Your task to perform on an android device: Open network settings Image 0: 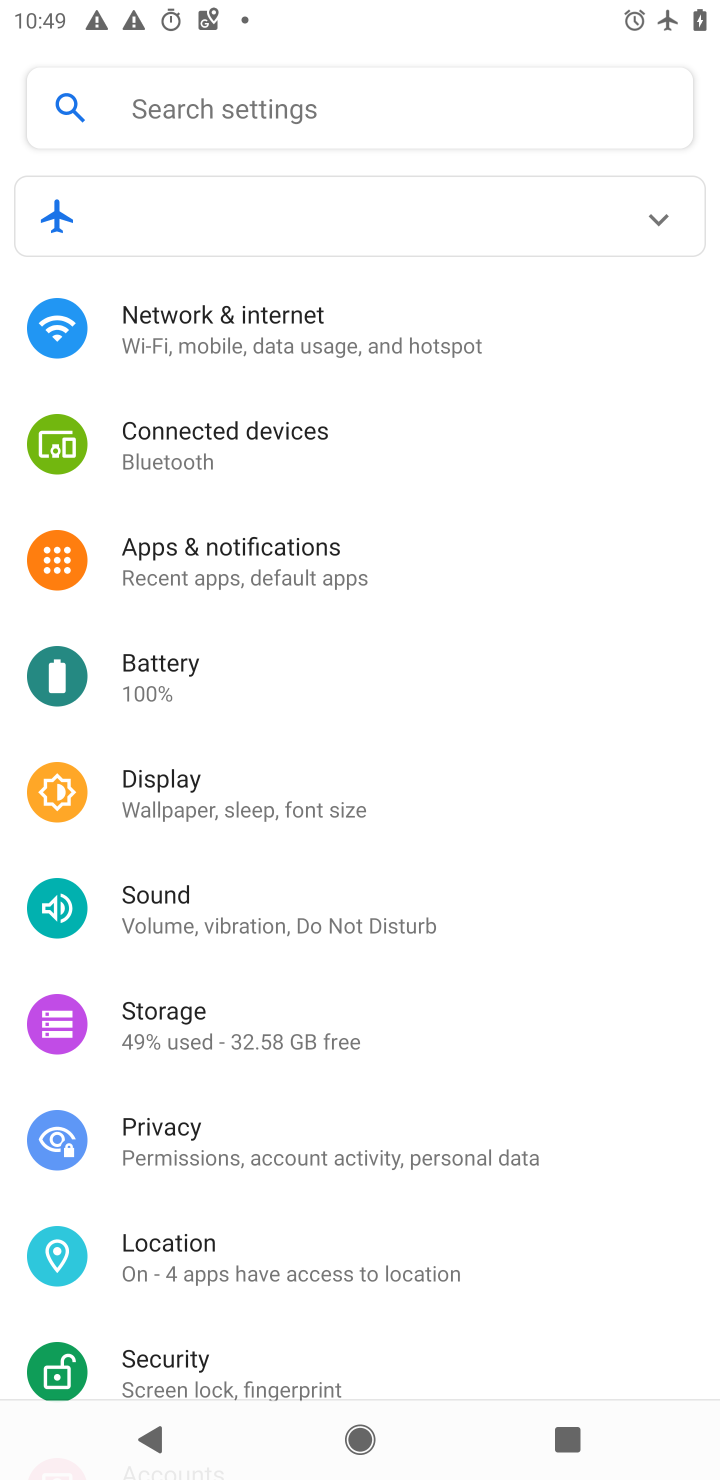
Step 0: click (282, 350)
Your task to perform on an android device: Open network settings Image 1: 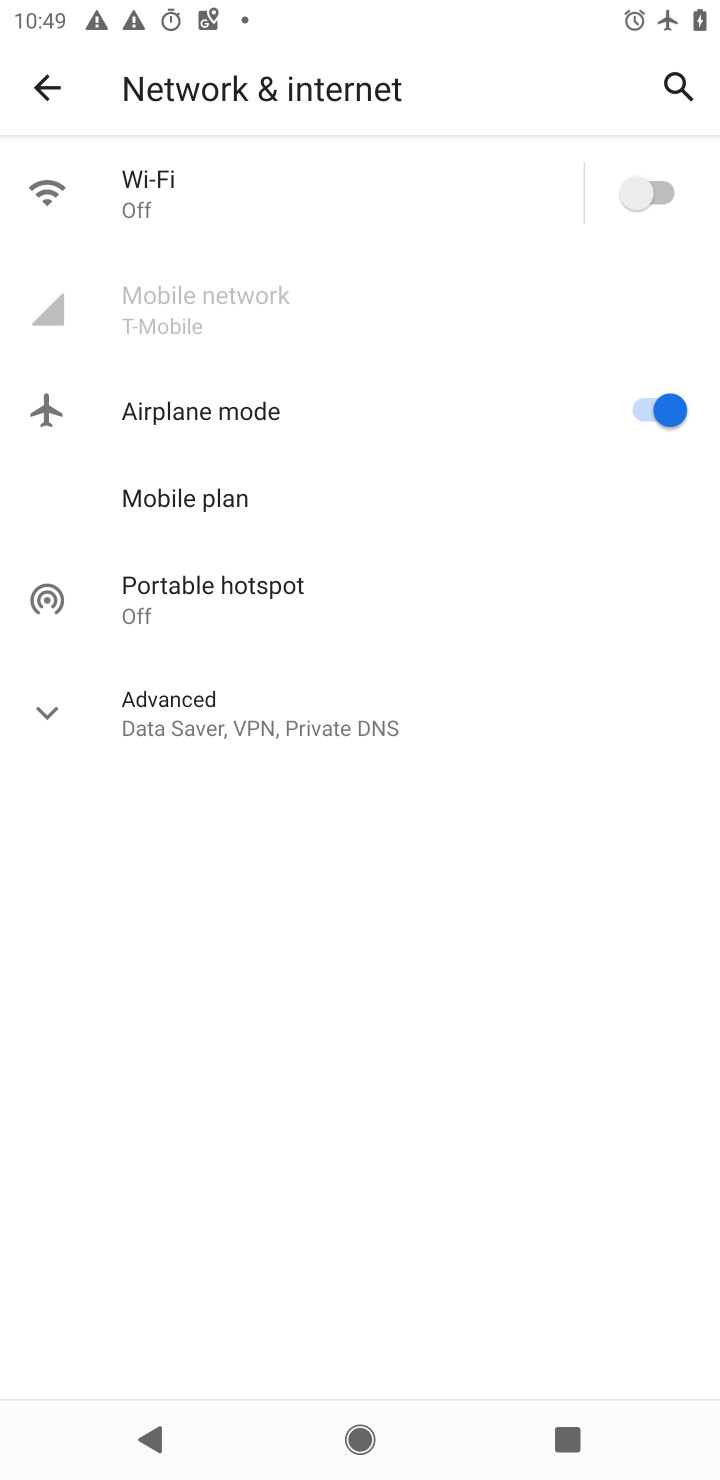
Step 1: task complete